Your task to perform on an android device: see tabs open on other devices in the chrome app Image 0: 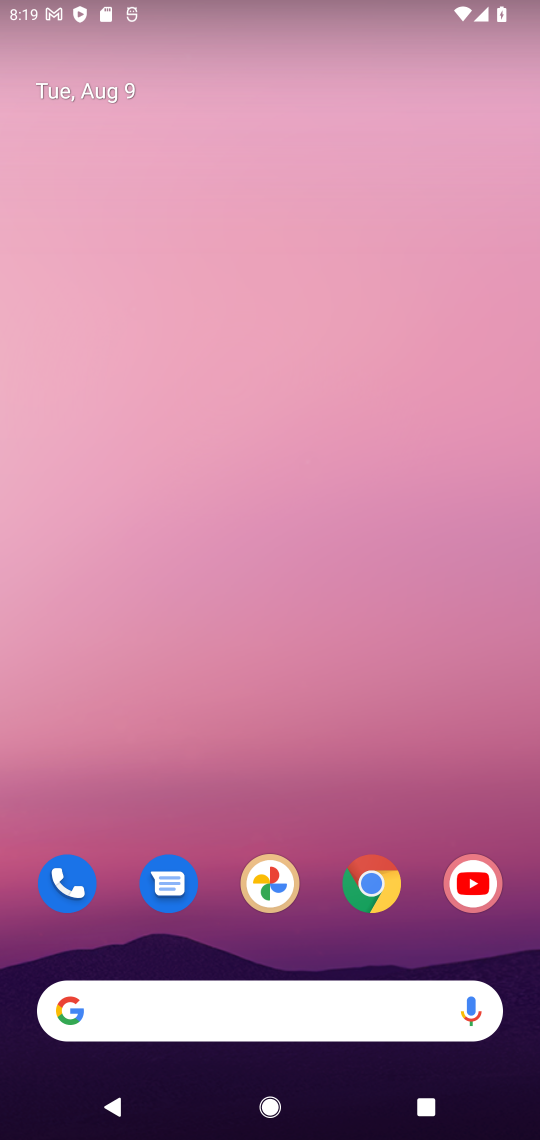
Step 0: drag from (301, 633) to (328, 63)
Your task to perform on an android device: see tabs open on other devices in the chrome app Image 1: 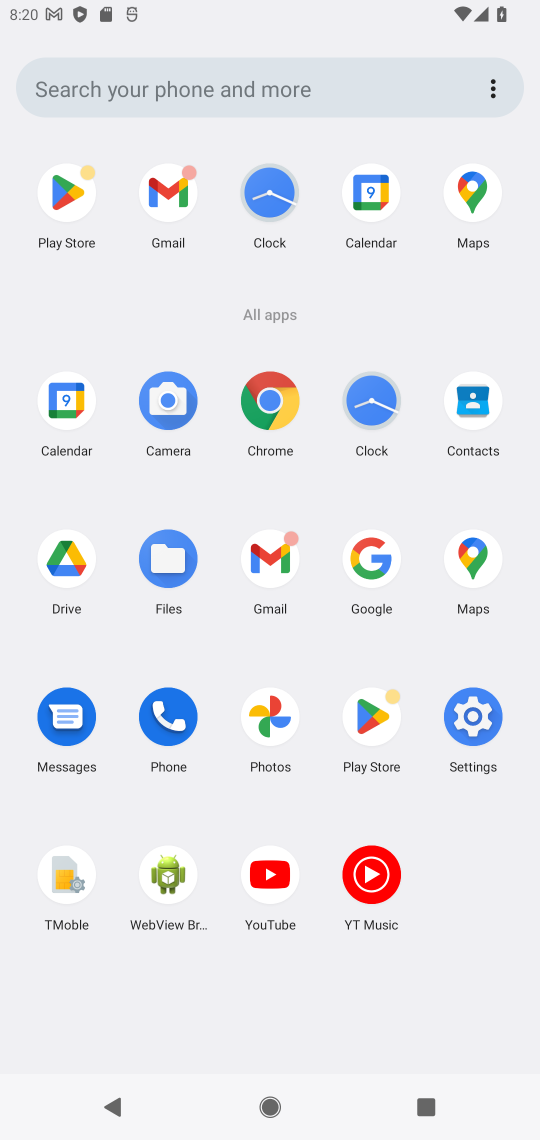
Step 1: click (276, 397)
Your task to perform on an android device: see tabs open on other devices in the chrome app Image 2: 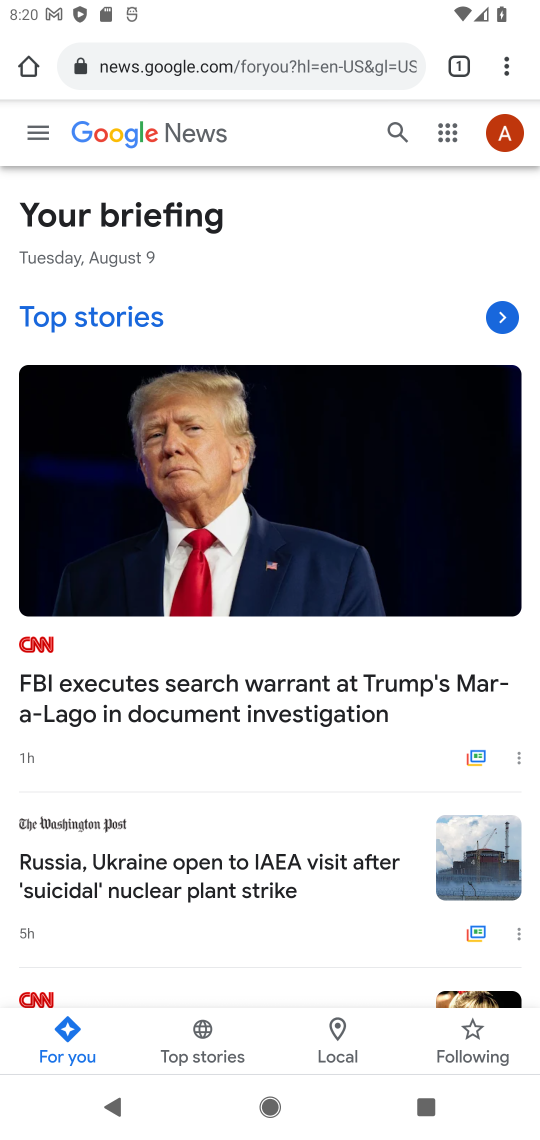
Step 2: task complete